Your task to perform on an android device: Open privacy settings Image 0: 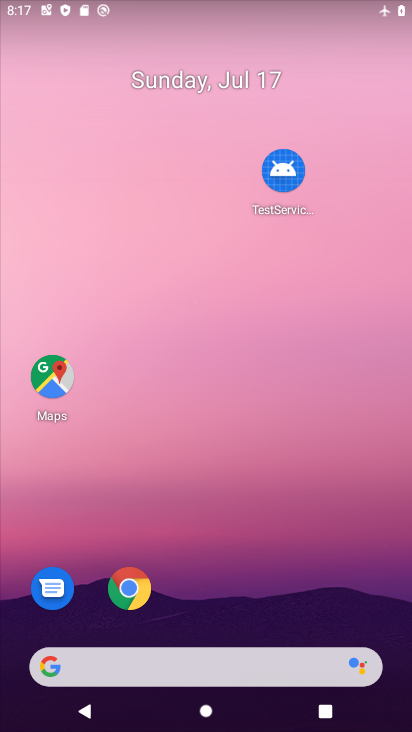
Step 0: drag from (276, 668) to (336, 73)
Your task to perform on an android device: Open privacy settings Image 1: 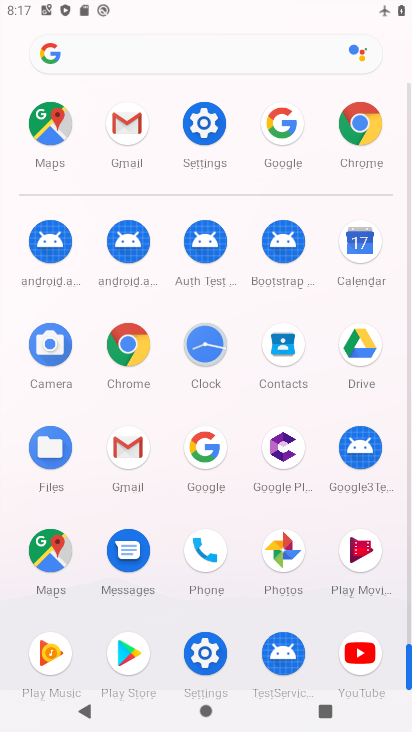
Step 1: click (199, 146)
Your task to perform on an android device: Open privacy settings Image 2: 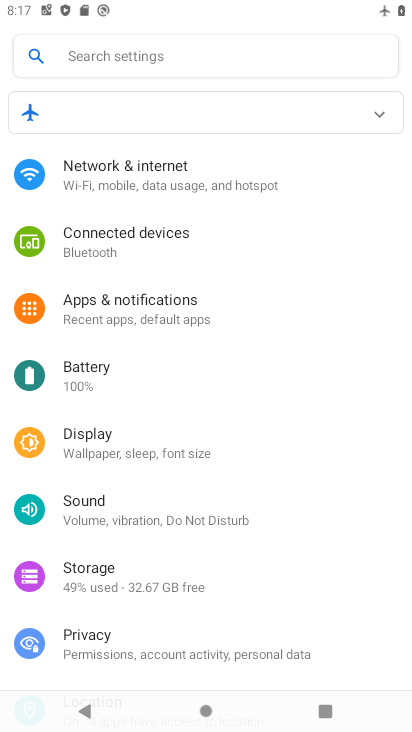
Step 2: drag from (145, 550) to (169, 258)
Your task to perform on an android device: Open privacy settings Image 3: 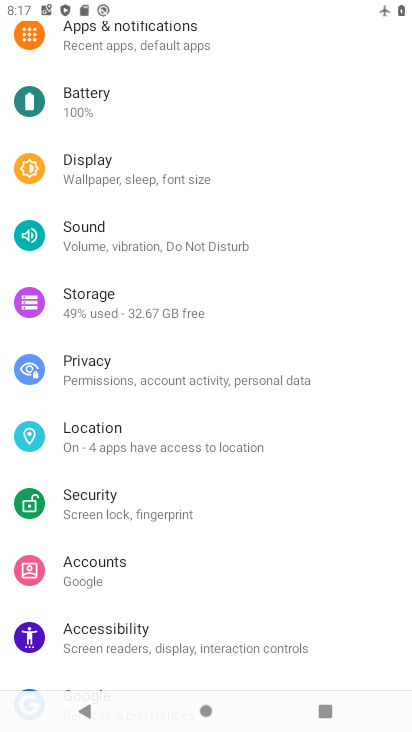
Step 3: click (159, 394)
Your task to perform on an android device: Open privacy settings Image 4: 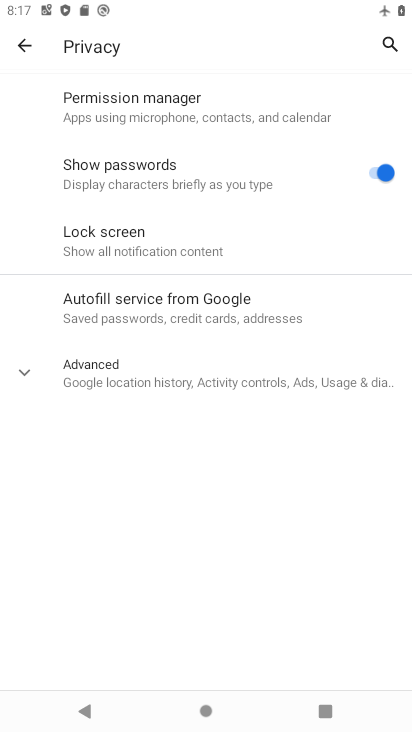
Step 4: task complete